Your task to perform on an android device: Search for a new mascara on Sephora Image 0: 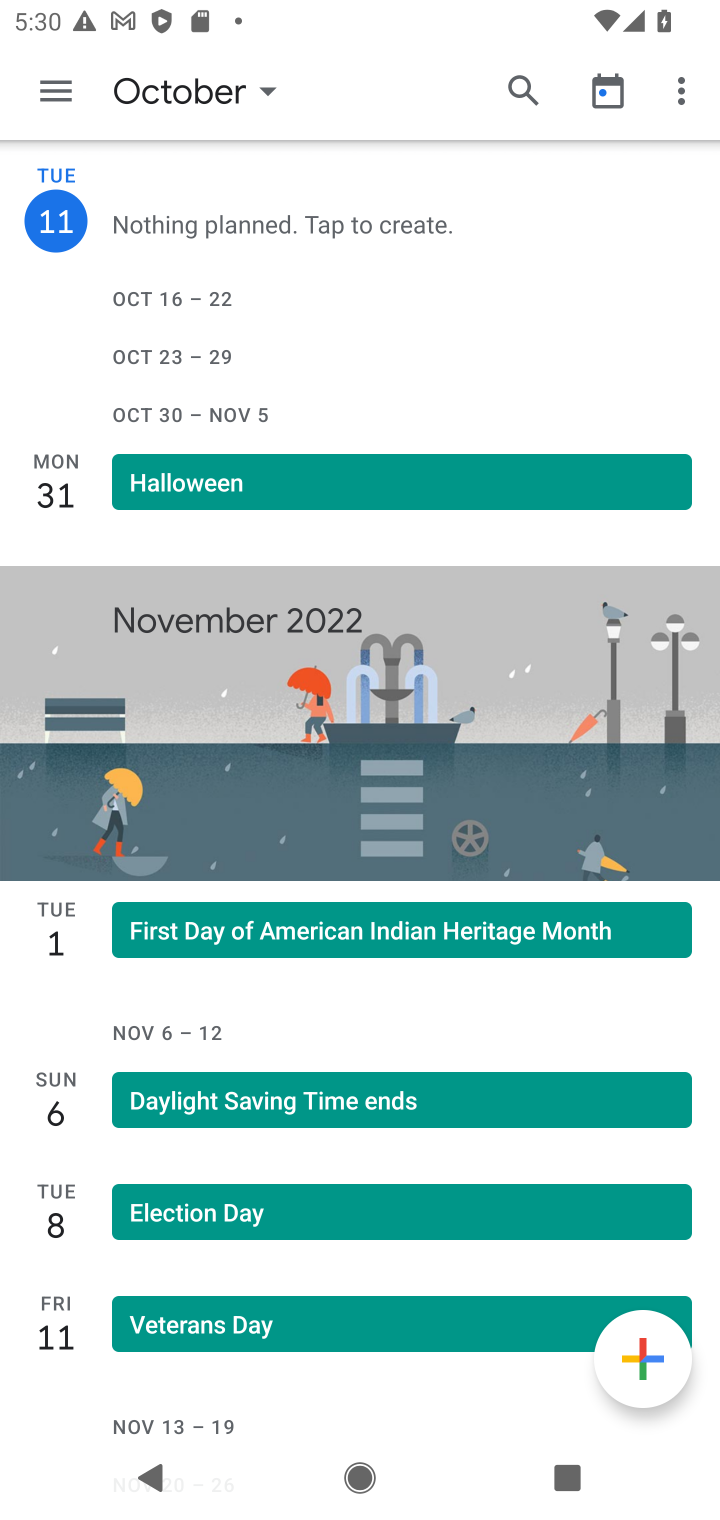
Step 0: press home button
Your task to perform on an android device: Search for a new mascara on Sephora Image 1: 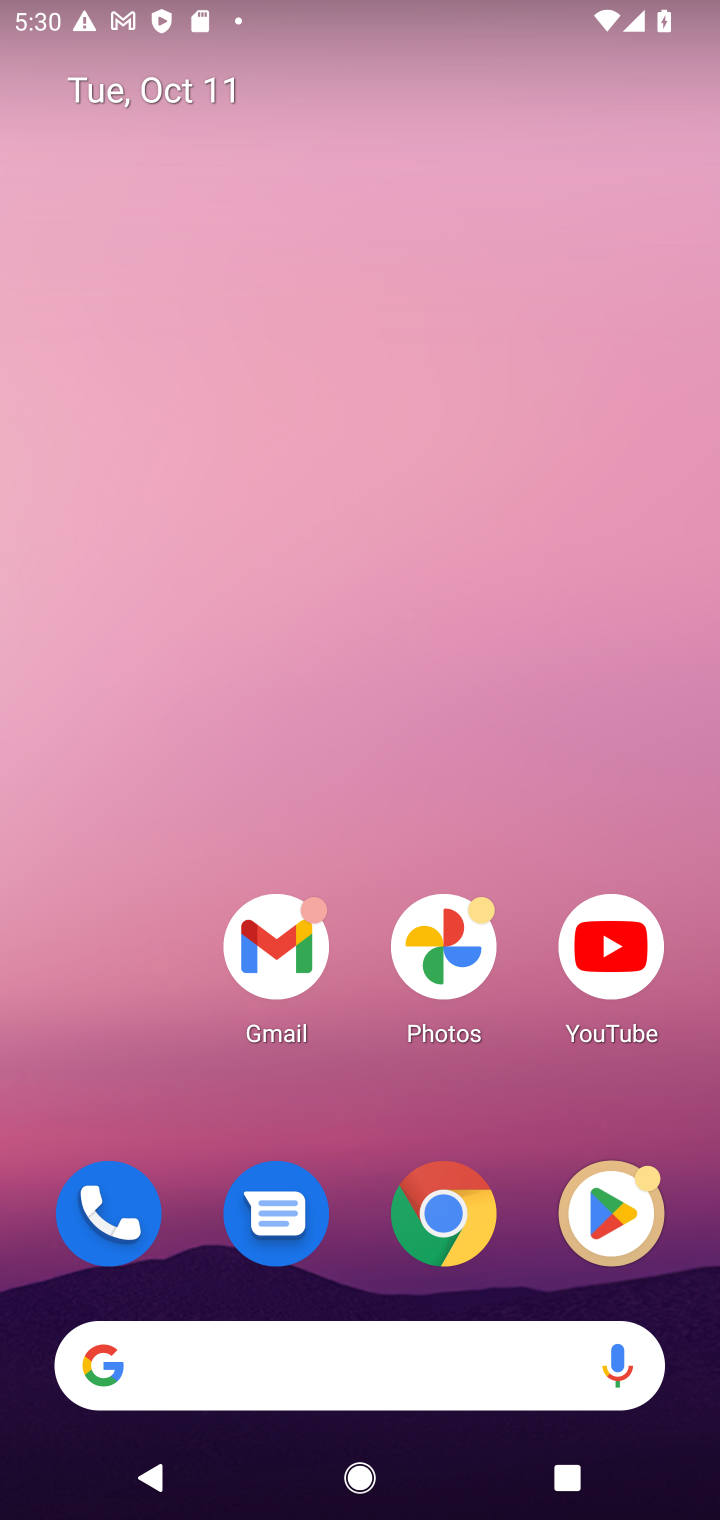
Step 1: drag from (331, 996) to (331, 586)
Your task to perform on an android device: Search for a new mascara on Sephora Image 2: 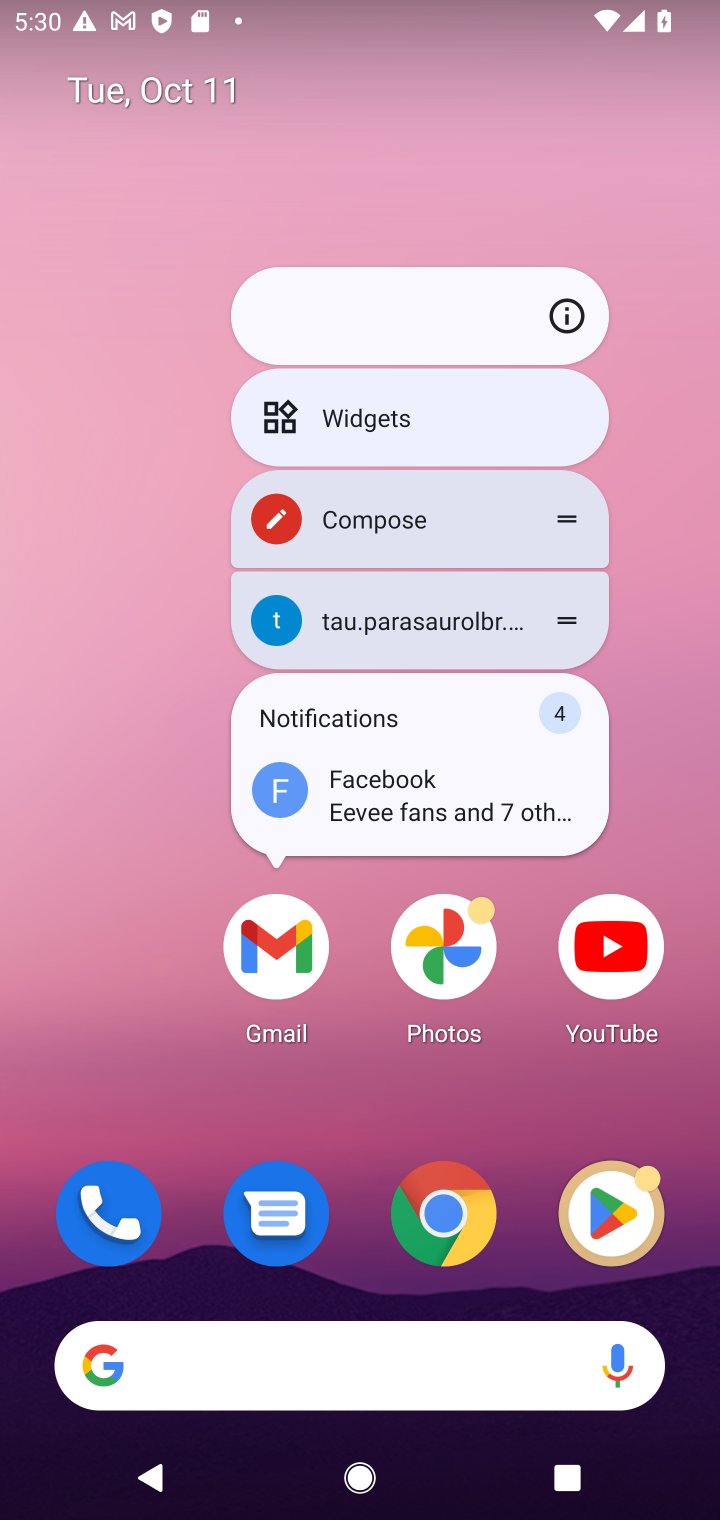
Step 2: click (82, 968)
Your task to perform on an android device: Search for a new mascara on Sephora Image 3: 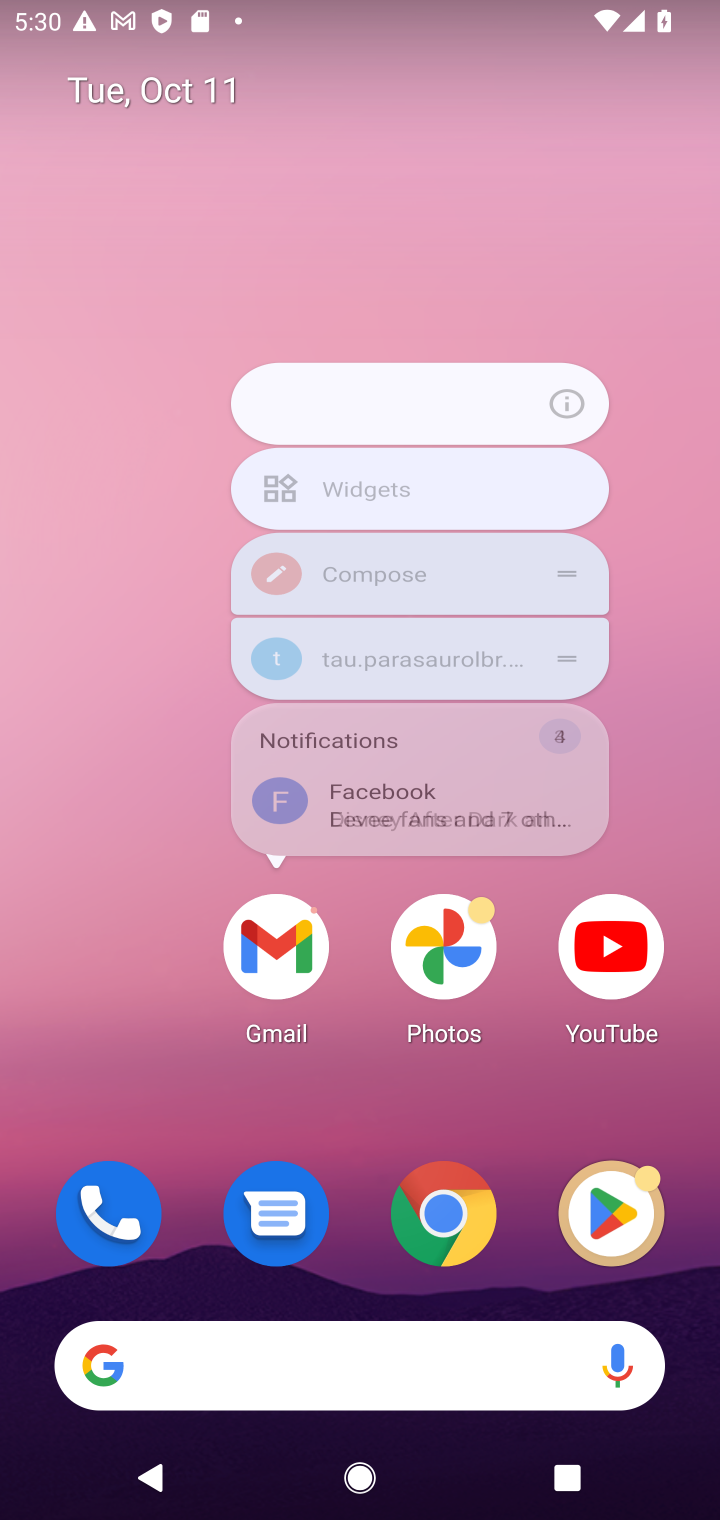
Step 3: click (329, 1351)
Your task to perform on an android device: Search for a new mascara on Sephora Image 4: 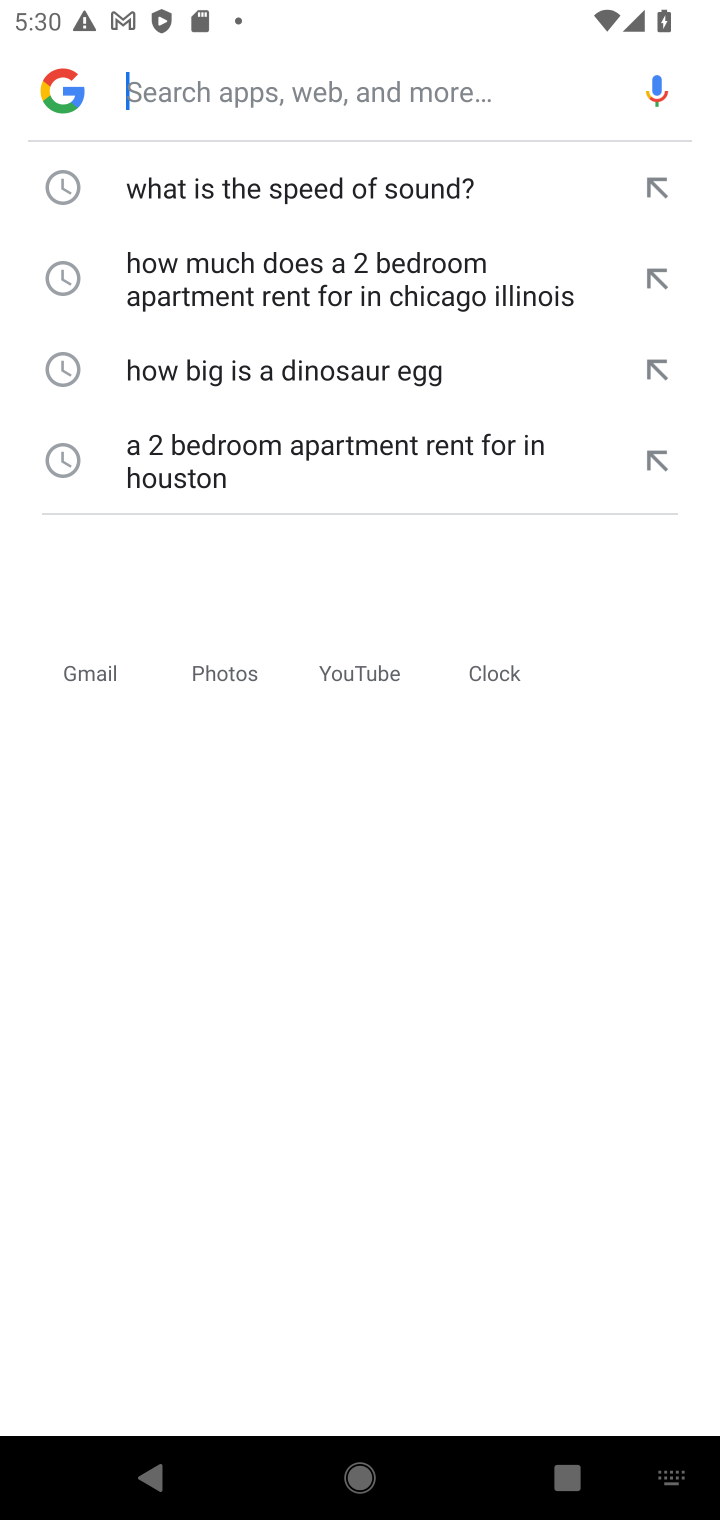
Step 4: type "Search for a new mascara on Sephora"
Your task to perform on an android device: Search for a new mascara on Sephora Image 5: 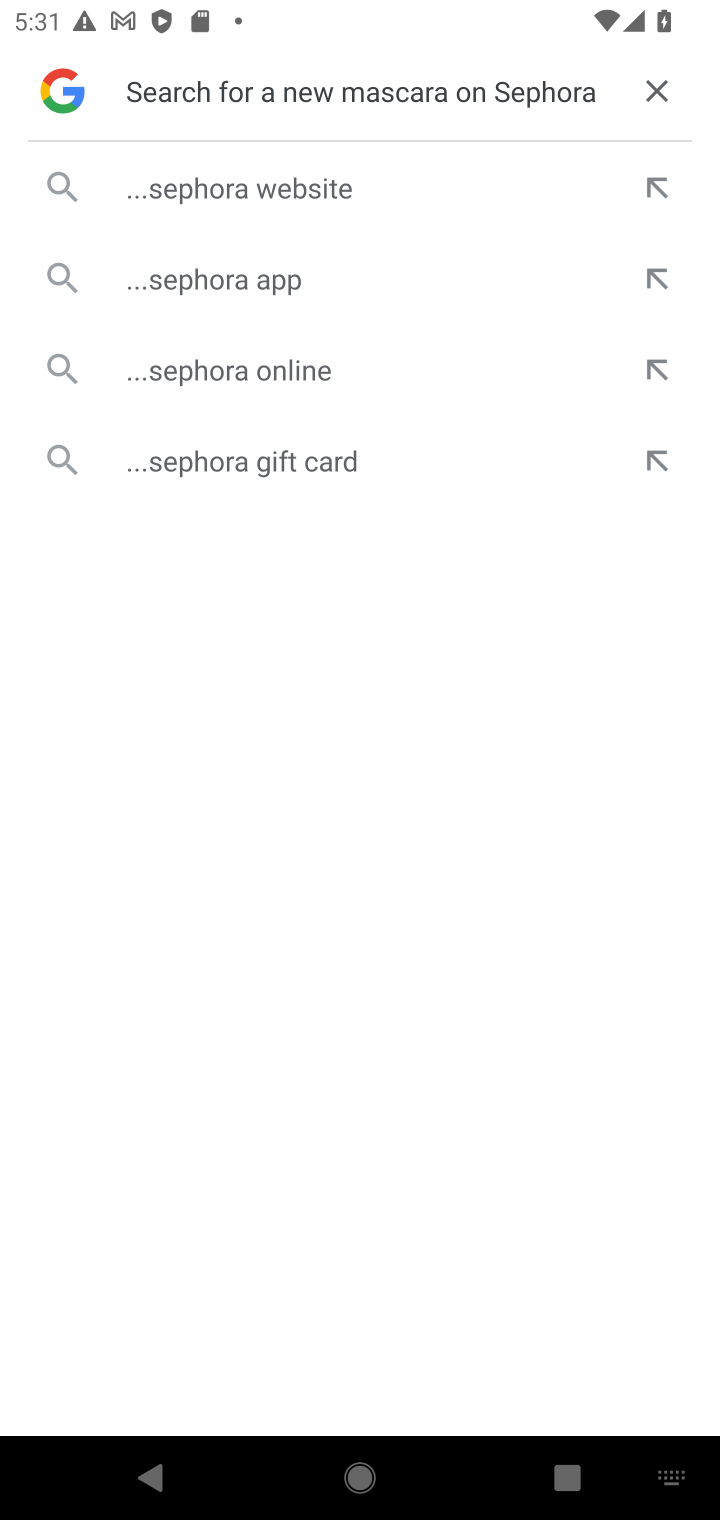
Step 5: click (255, 180)
Your task to perform on an android device: Search for a new mascara on Sephora Image 6: 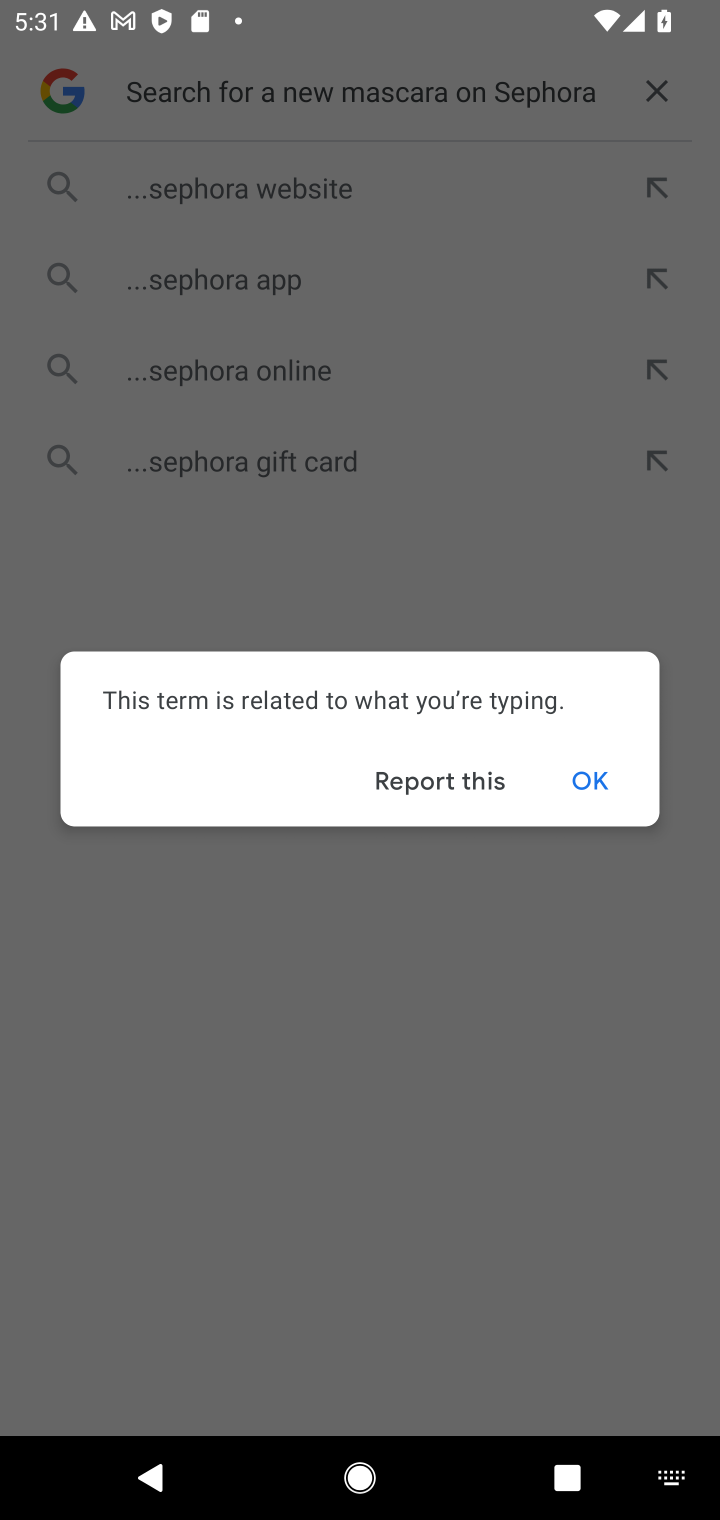
Step 6: click (585, 776)
Your task to perform on an android device: Search for a new mascara on Sephora Image 7: 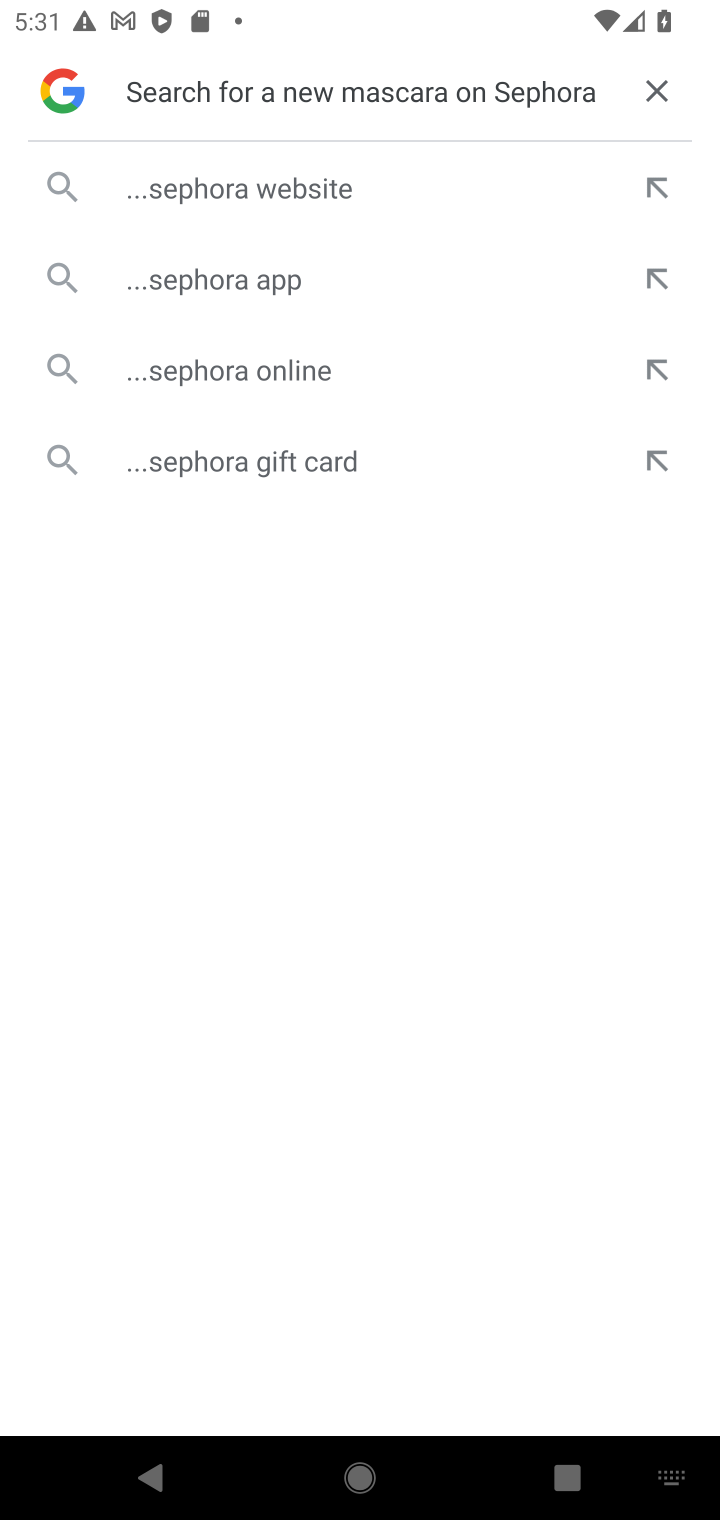
Step 7: click (208, 187)
Your task to perform on an android device: Search for a new mascara on Sephora Image 8: 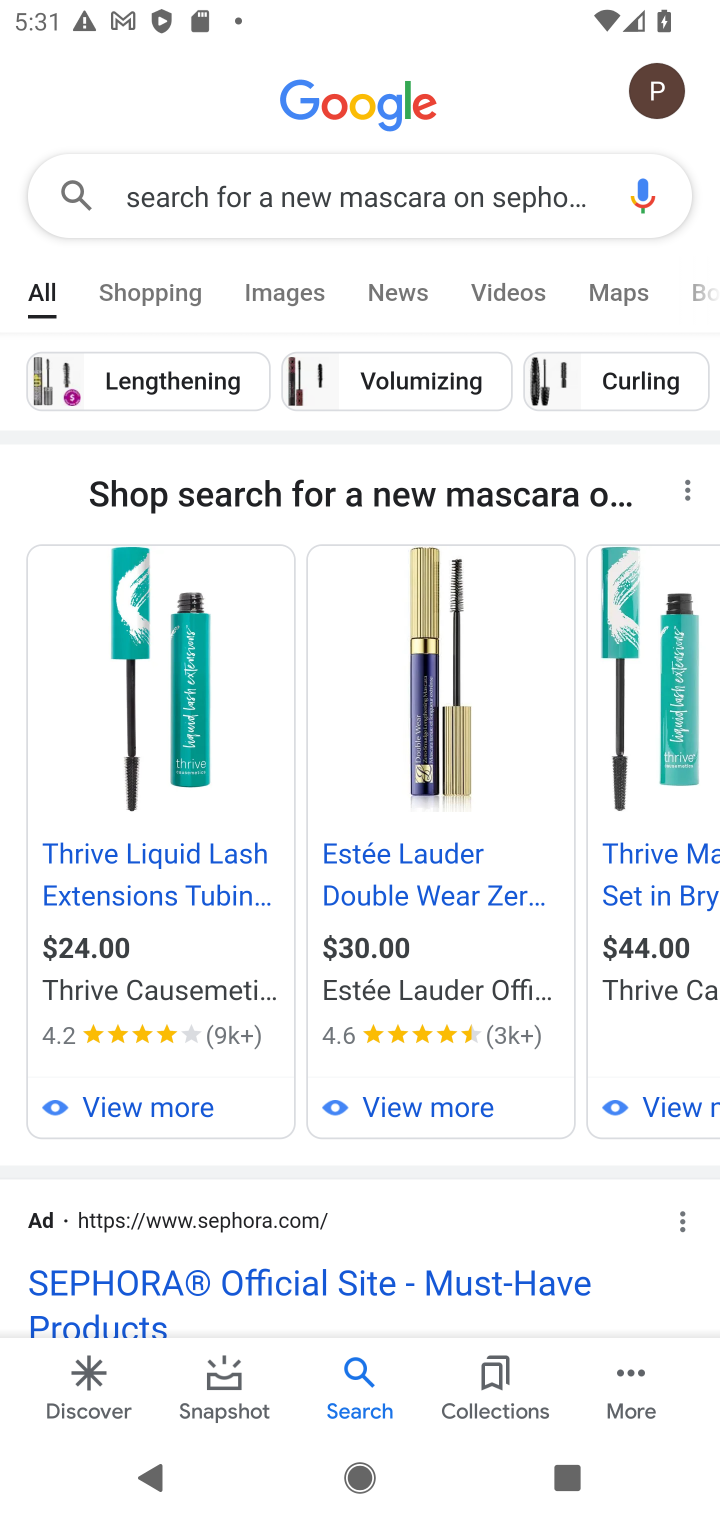
Step 8: task complete